Your task to perform on an android device: open wifi settings Image 0: 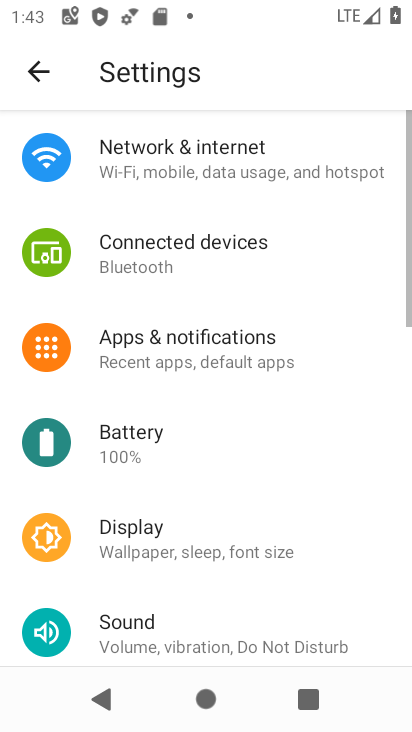
Step 0: press home button
Your task to perform on an android device: open wifi settings Image 1: 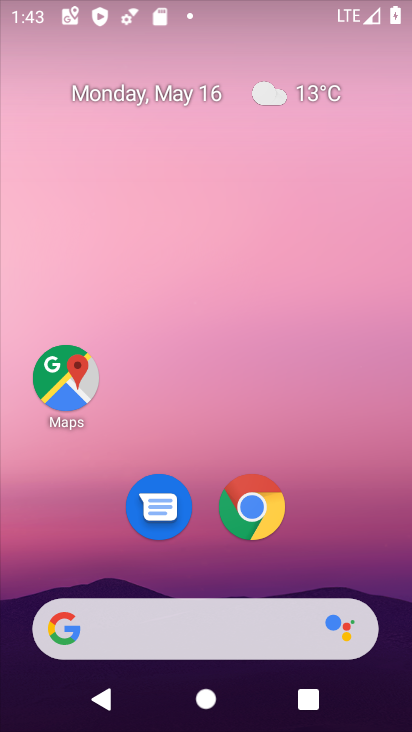
Step 1: drag from (301, 484) to (221, 36)
Your task to perform on an android device: open wifi settings Image 2: 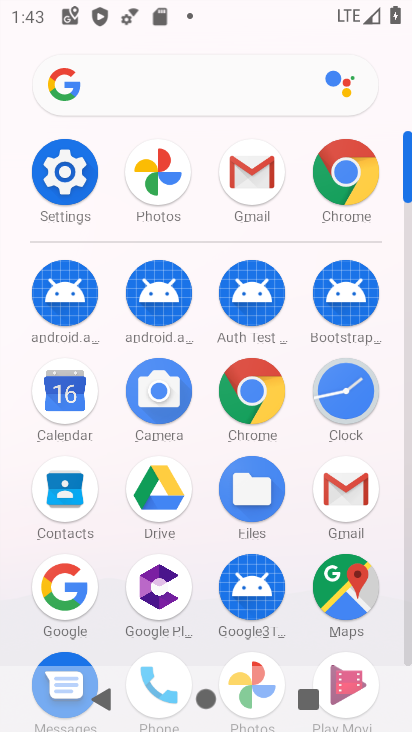
Step 2: click (58, 172)
Your task to perform on an android device: open wifi settings Image 3: 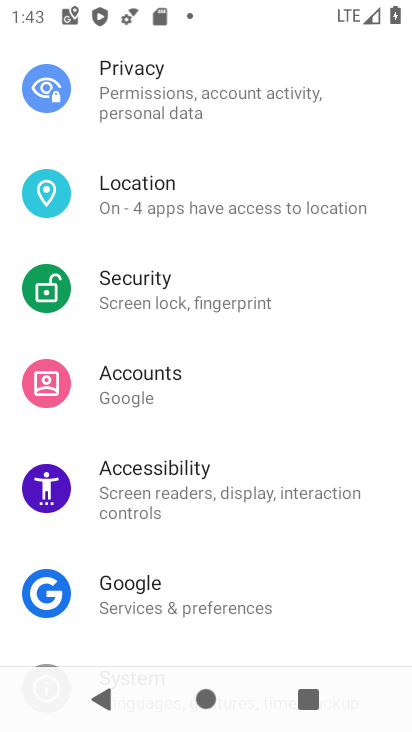
Step 3: drag from (253, 166) to (213, 602)
Your task to perform on an android device: open wifi settings Image 4: 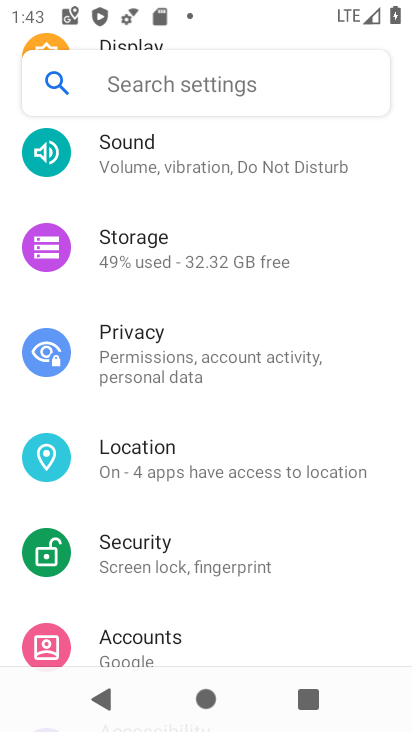
Step 4: drag from (228, 170) to (193, 561)
Your task to perform on an android device: open wifi settings Image 5: 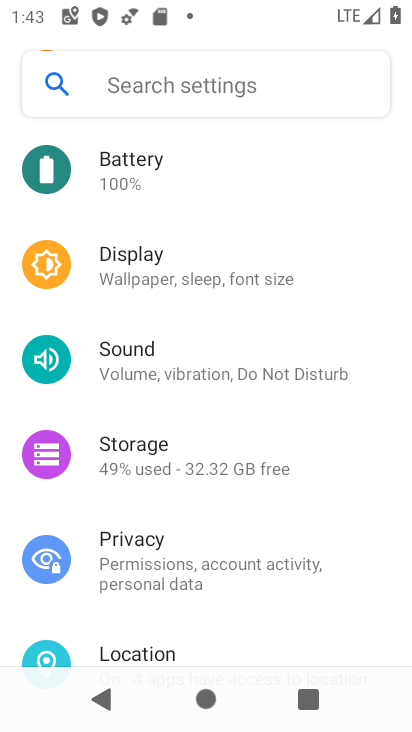
Step 5: drag from (226, 261) to (182, 564)
Your task to perform on an android device: open wifi settings Image 6: 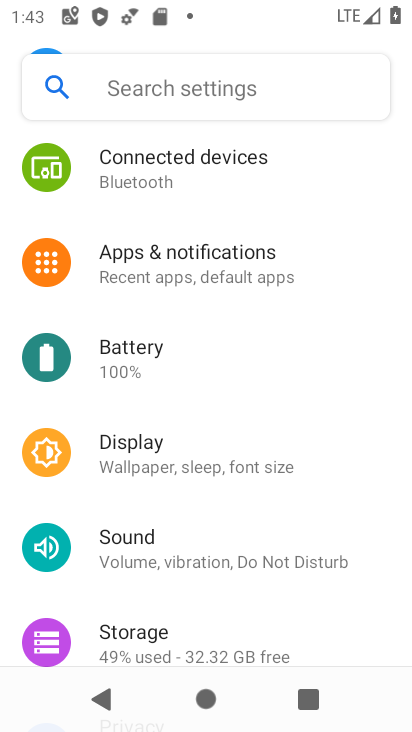
Step 6: drag from (231, 268) to (181, 608)
Your task to perform on an android device: open wifi settings Image 7: 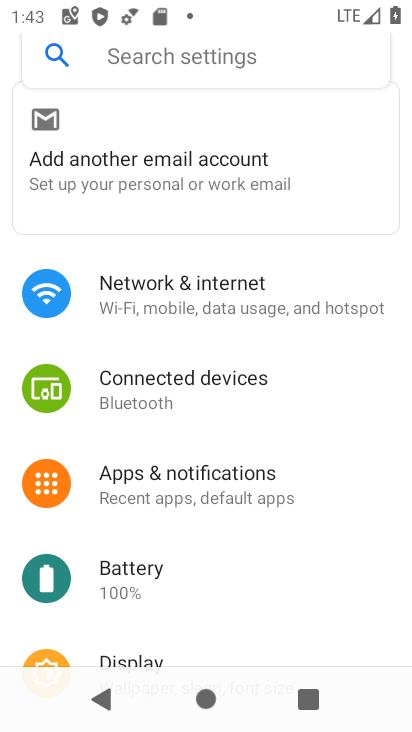
Step 7: click (202, 284)
Your task to perform on an android device: open wifi settings Image 8: 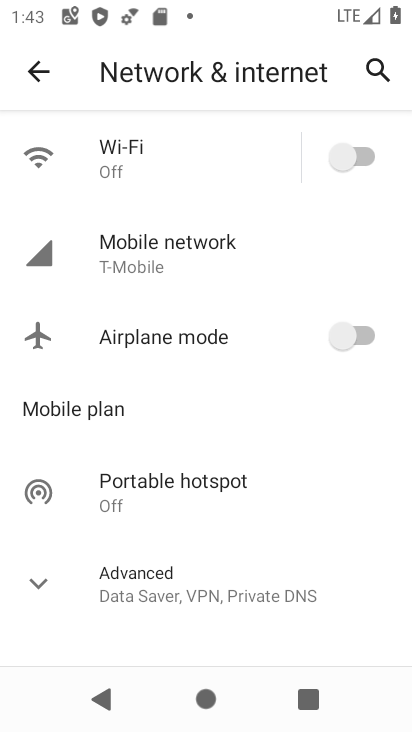
Step 8: click (253, 156)
Your task to perform on an android device: open wifi settings Image 9: 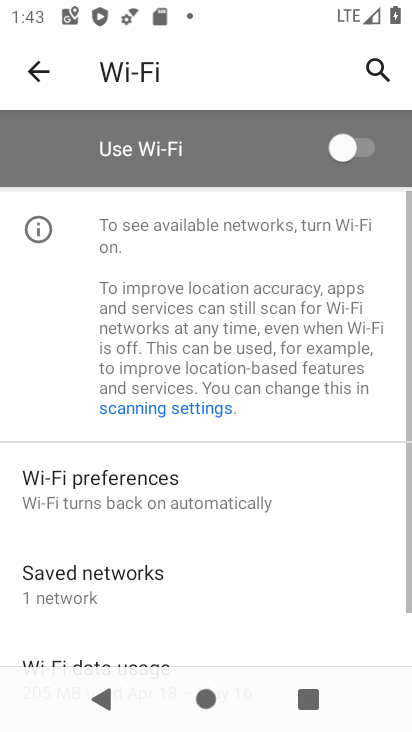
Step 9: task complete